Your task to perform on an android device: change text size in settings app Image 0: 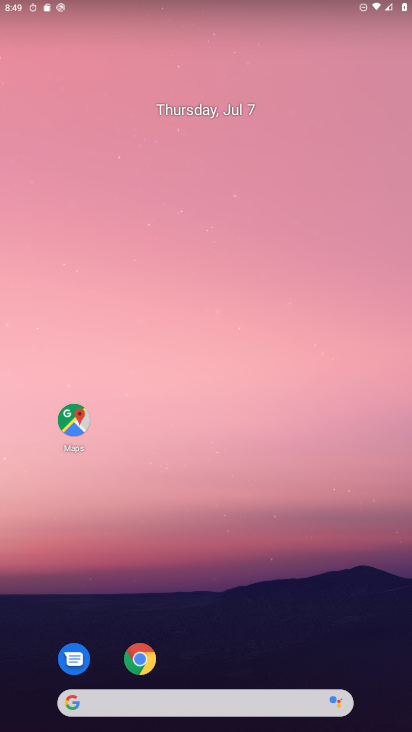
Step 0: drag from (359, 674) to (187, 0)
Your task to perform on an android device: change text size in settings app Image 1: 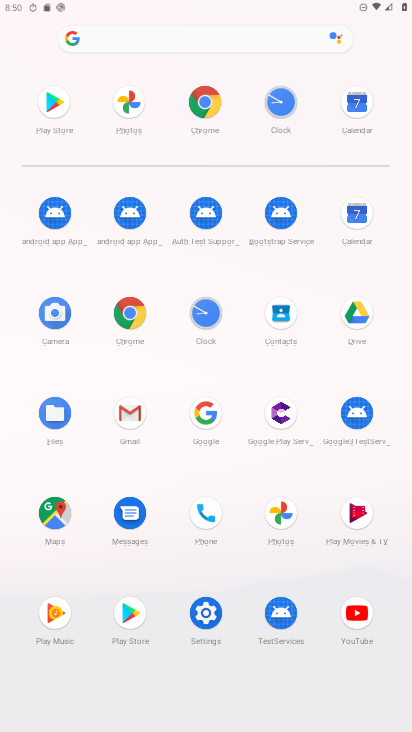
Step 1: click (213, 619)
Your task to perform on an android device: change text size in settings app Image 2: 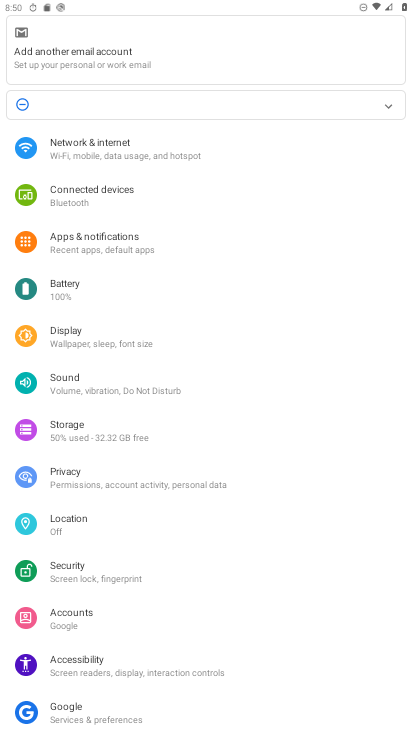
Step 2: click (87, 339)
Your task to perform on an android device: change text size in settings app Image 3: 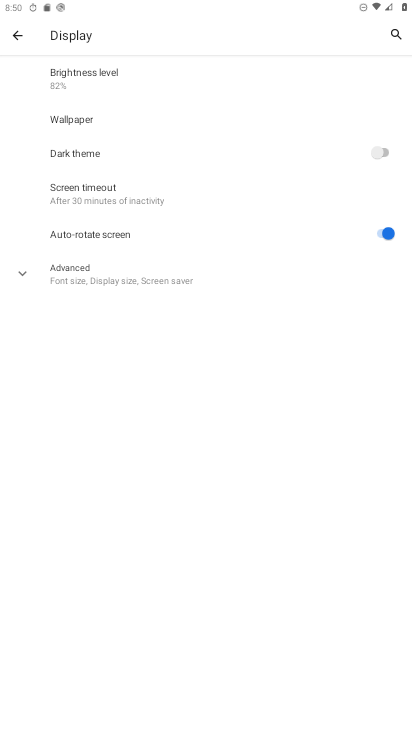
Step 3: click (65, 267)
Your task to perform on an android device: change text size in settings app Image 4: 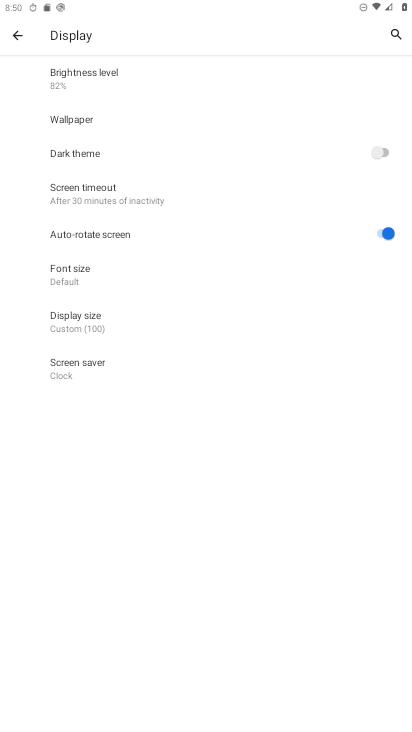
Step 4: click (124, 278)
Your task to perform on an android device: change text size in settings app Image 5: 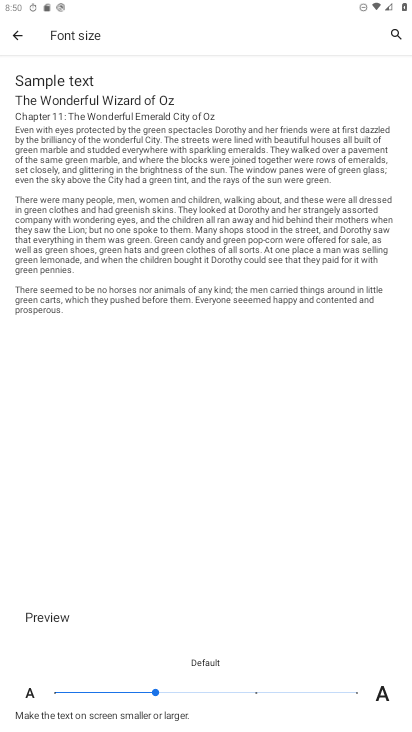
Step 5: click (255, 695)
Your task to perform on an android device: change text size in settings app Image 6: 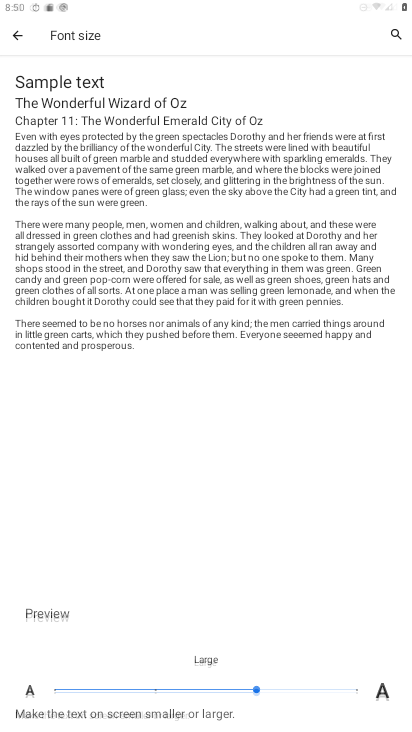
Step 6: click (355, 695)
Your task to perform on an android device: change text size in settings app Image 7: 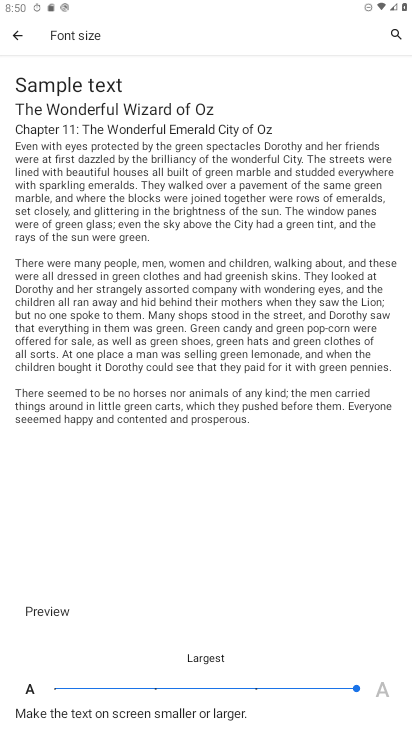
Step 7: task complete